Your task to perform on an android device: Open Google Chrome and open the bookmarks view Image 0: 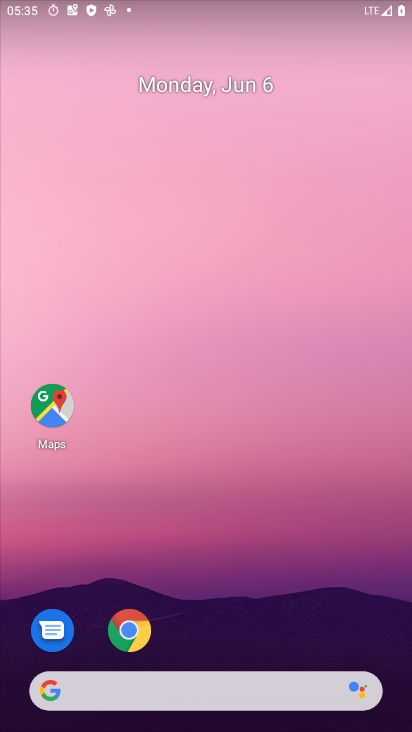
Step 0: click (124, 614)
Your task to perform on an android device: Open Google Chrome and open the bookmarks view Image 1: 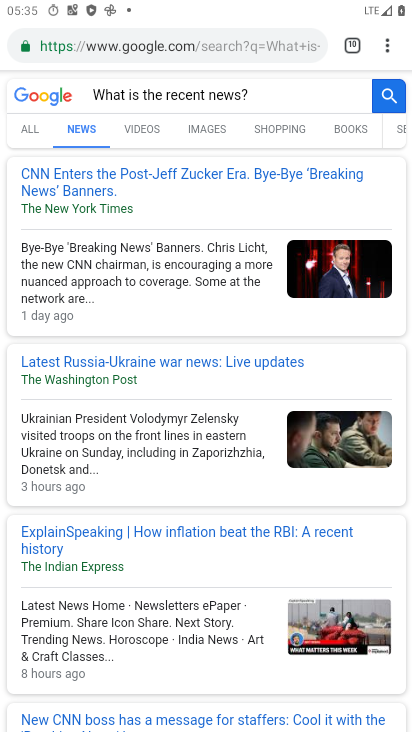
Step 1: task complete